Your task to perform on an android device: Is it going to rain this weekend? Image 0: 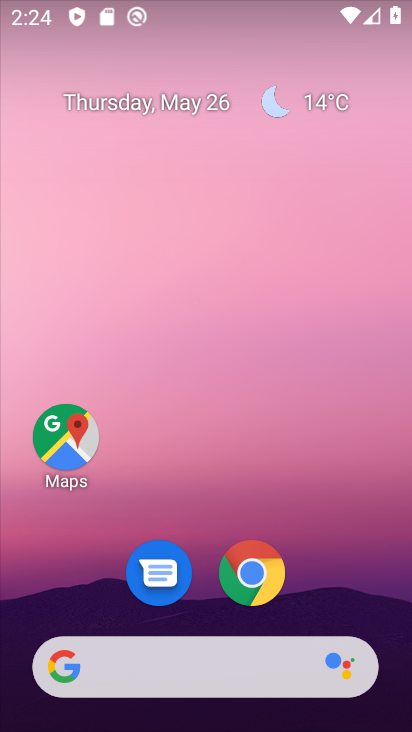
Step 0: drag from (287, 531) to (179, 26)
Your task to perform on an android device: Is it going to rain this weekend? Image 1: 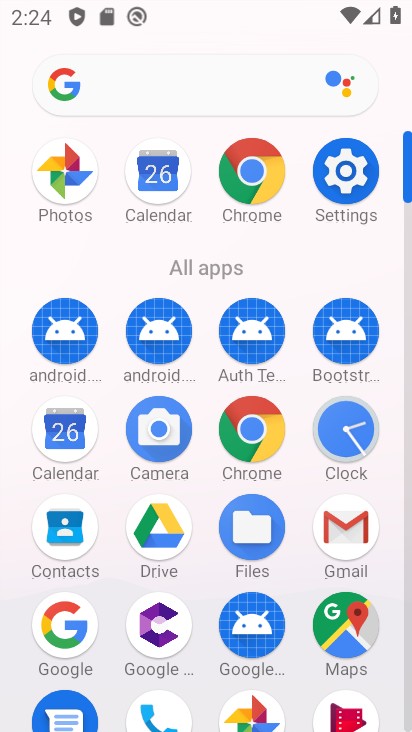
Step 1: drag from (11, 577) to (8, 250)
Your task to perform on an android device: Is it going to rain this weekend? Image 2: 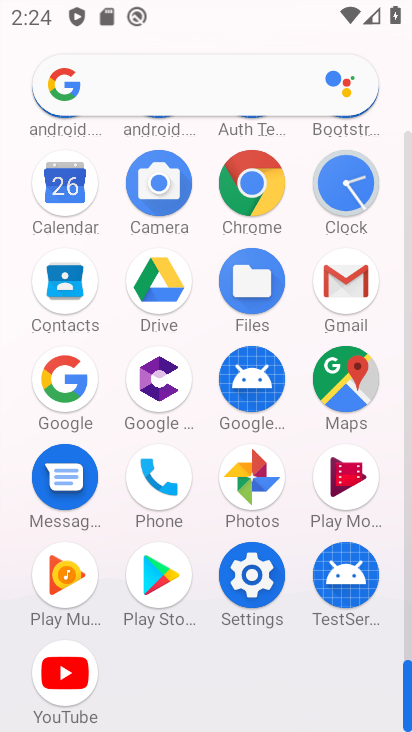
Step 2: drag from (238, 436) to (293, 492)
Your task to perform on an android device: Is it going to rain this weekend? Image 3: 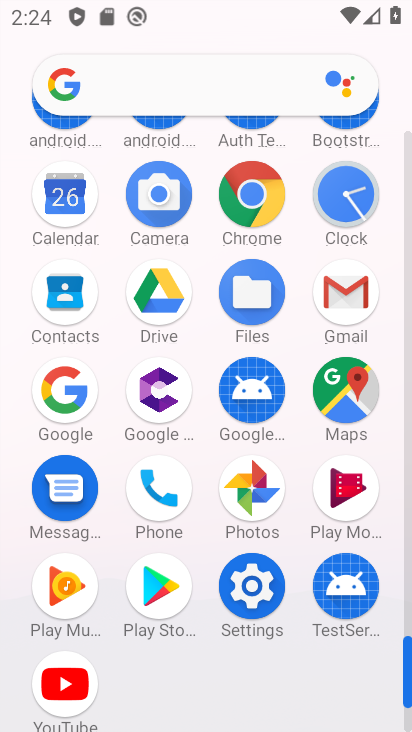
Step 3: drag from (10, 603) to (11, 353)
Your task to perform on an android device: Is it going to rain this weekend? Image 4: 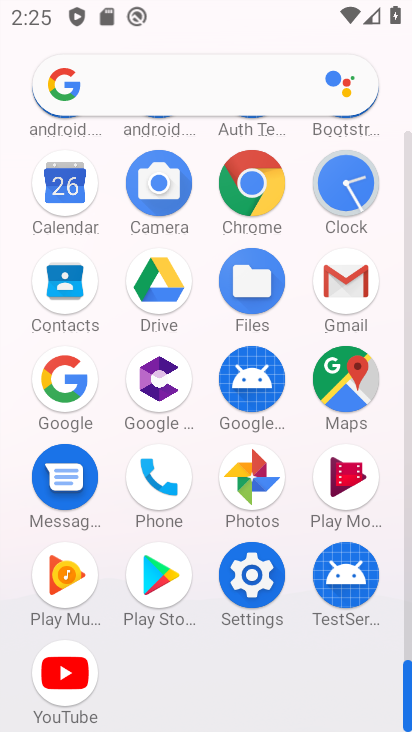
Step 4: click (264, 179)
Your task to perform on an android device: Is it going to rain this weekend? Image 5: 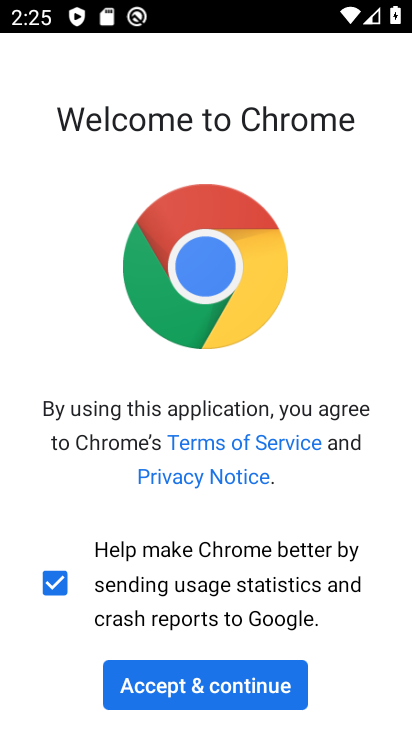
Step 5: click (239, 686)
Your task to perform on an android device: Is it going to rain this weekend? Image 6: 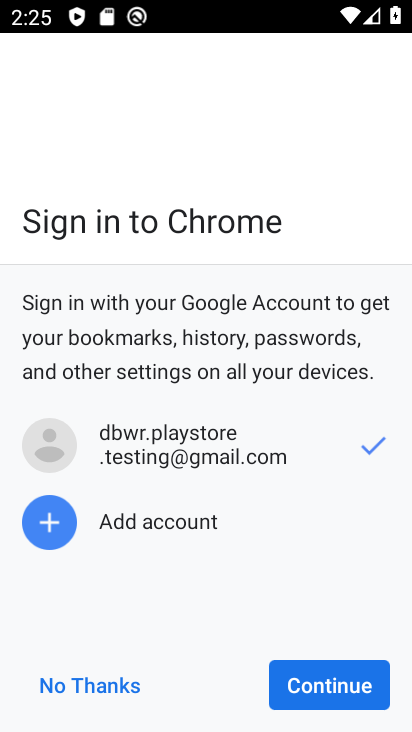
Step 6: click (329, 681)
Your task to perform on an android device: Is it going to rain this weekend? Image 7: 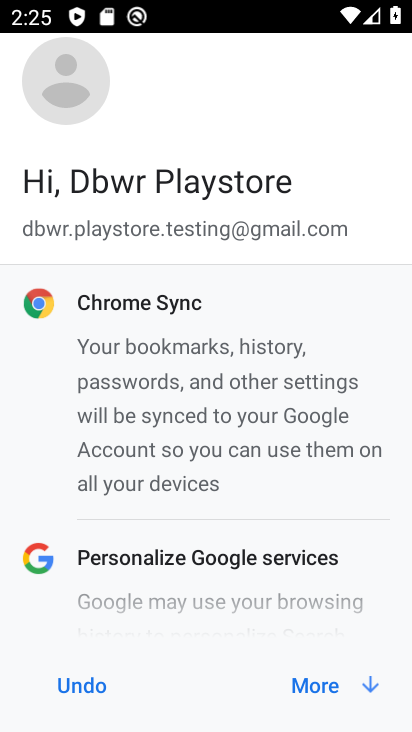
Step 7: click (319, 685)
Your task to perform on an android device: Is it going to rain this weekend? Image 8: 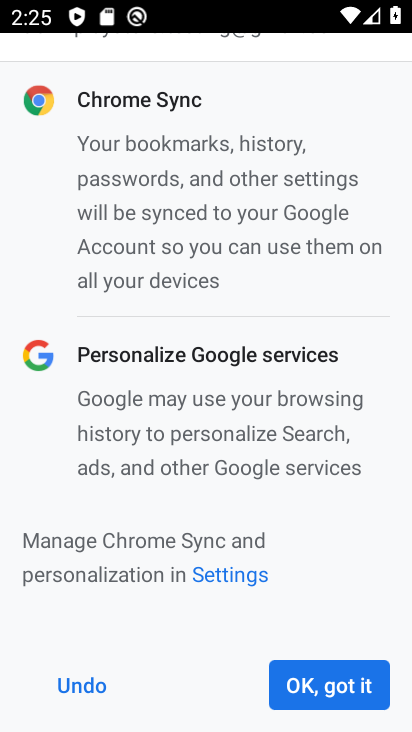
Step 8: click (316, 676)
Your task to perform on an android device: Is it going to rain this weekend? Image 9: 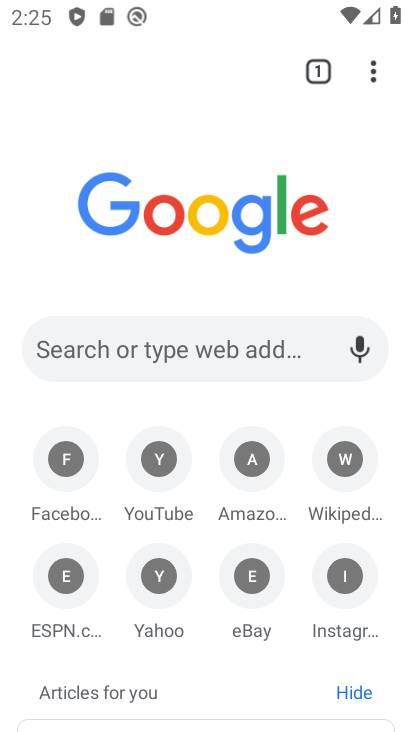
Step 9: click (196, 348)
Your task to perform on an android device: Is it going to rain this weekend? Image 10: 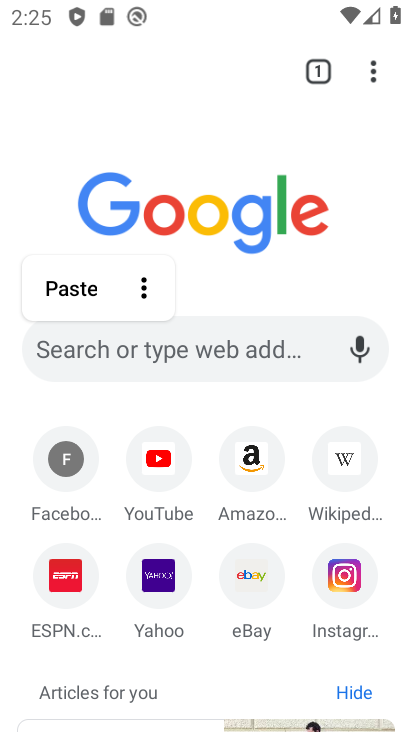
Step 10: click (70, 352)
Your task to perform on an android device: Is it going to rain this weekend? Image 11: 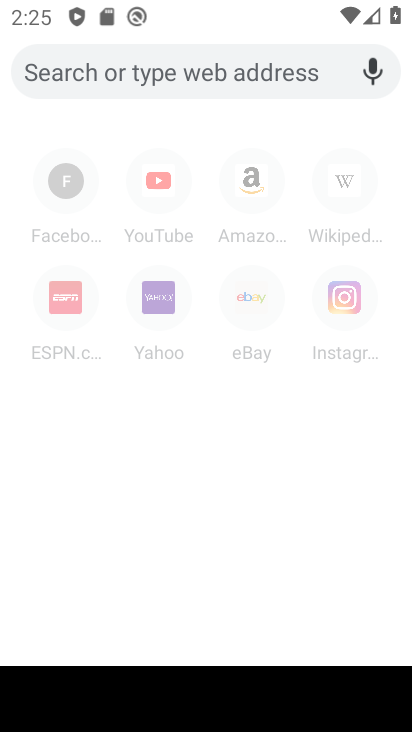
Step 11: type "Is it going to rain this weekend?"
Your task to perform on an android device: Is it going to rain this weekend? Image 12: 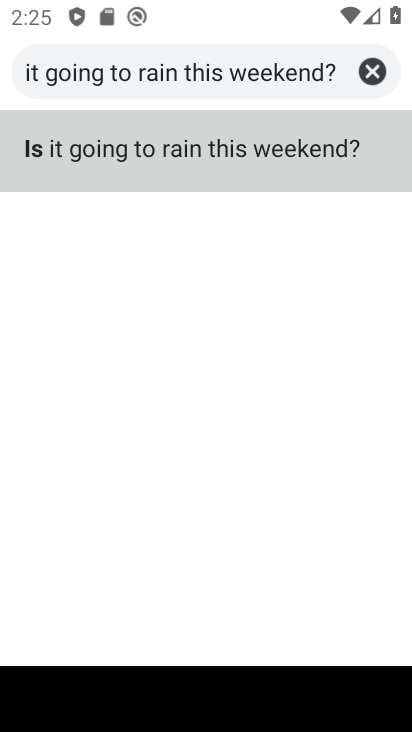
Step 12: click (230, 144)
Your task to perform on an android device: Is it going to rain this weekend? Image 13: 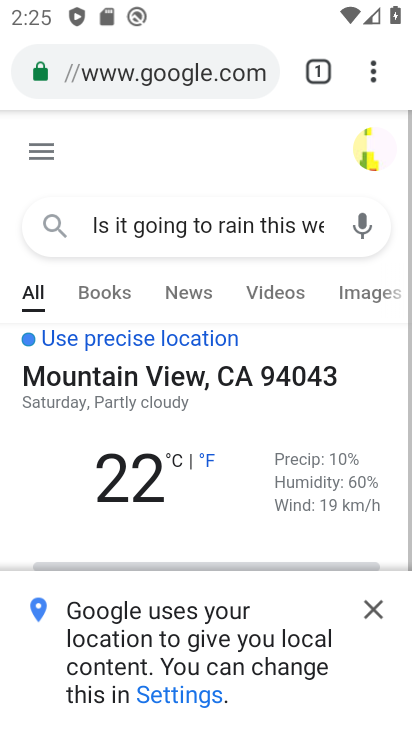
Step 13: click (368, 599)
Your task to perform on an android device: Is it going to rain this weekend? Image 14: 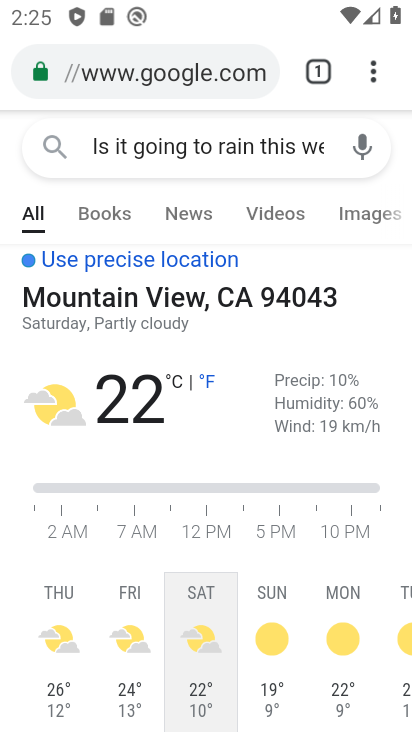
Step 14: task complete